Your task to perform on an android device: toggle notification dots Image 0: 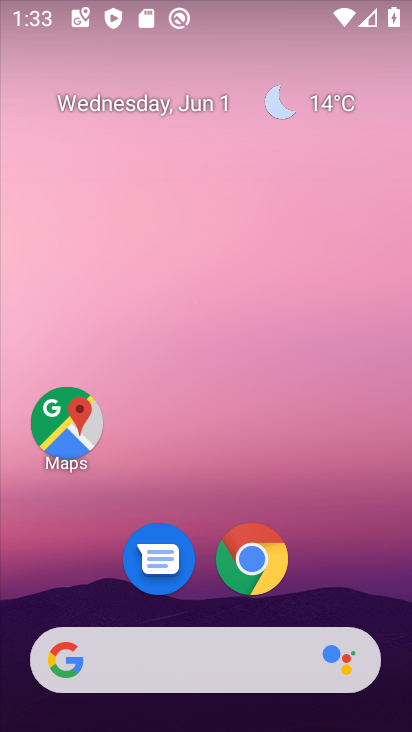
Step 0: drag from (396, 695) to (369, 147)
Your task to perform on an android device: toggle notification dots Image 1: 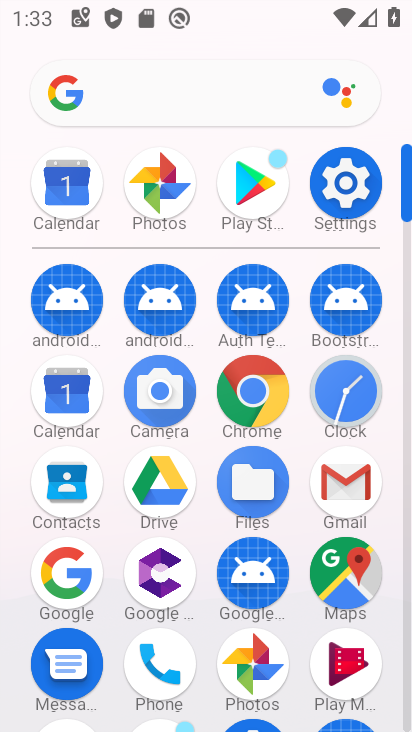
Step 1: click (338, 194)
Your task to perform on an android device: toggle notification dots Image 2: 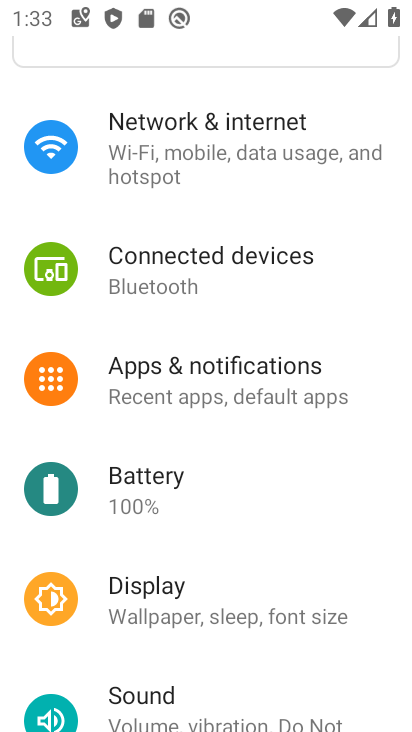
Step 2: click (178, 369)
Your task to perform on an android device: toggle notification dots Image 3: 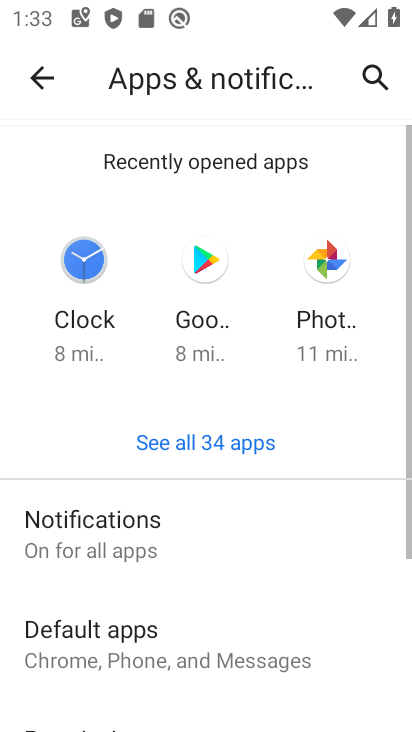
Step 3: click (122, 538)
Your task to perform on an android device: toggle notification dots Image 4: 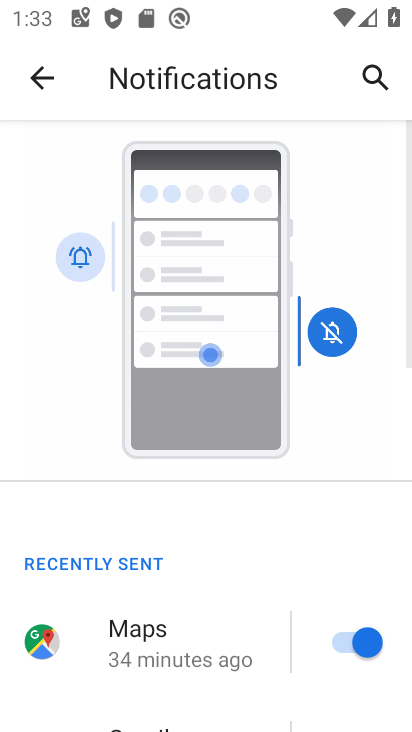
Step 4: drag from (272, 706) to (255, 166)
Your task to perform on an android device: toggle notification dots Image 5: 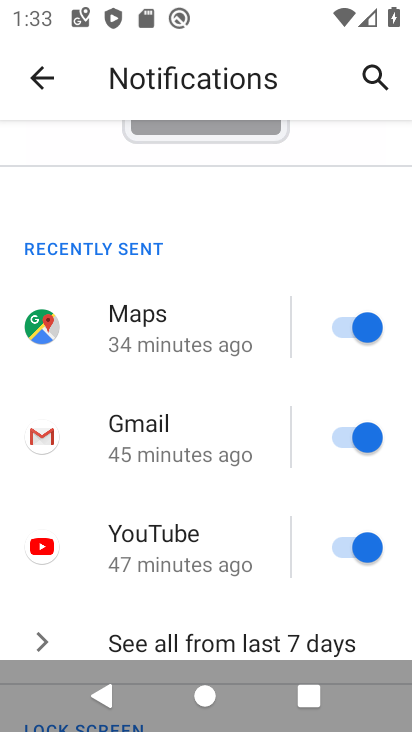
Step 5: drag from (266, 620) to (255, 218)
Your task to perform on an android device: toggle notification dots Image 6: 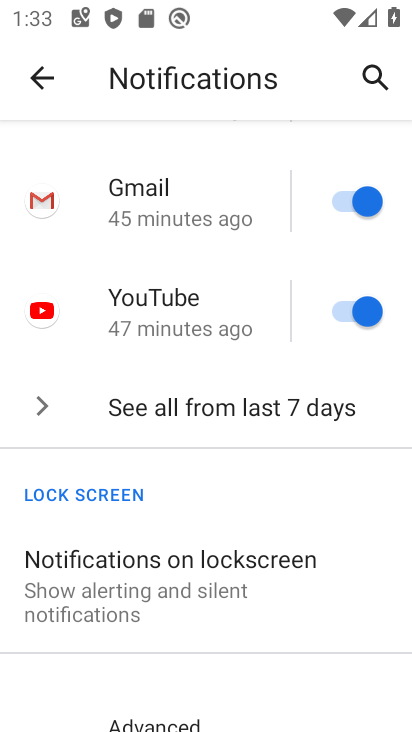
Step 6: drag from (204, 671) to (159, 304)
Your task to perform on an android device: toggle notification dots Image 7: 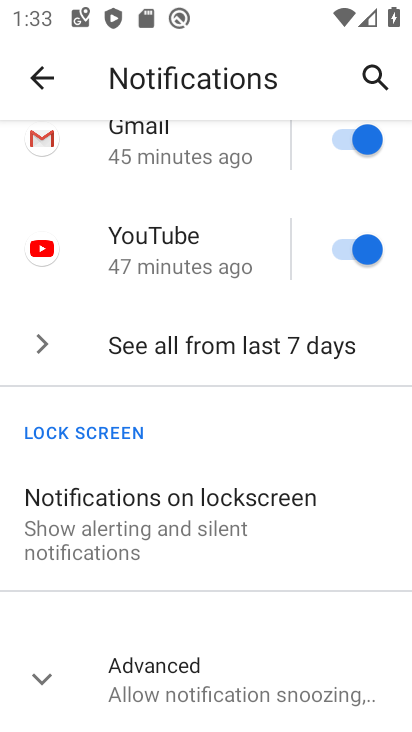
Step 7: click (42, 675)
Your task to perform on an android device: toggle notification dots Image 8: 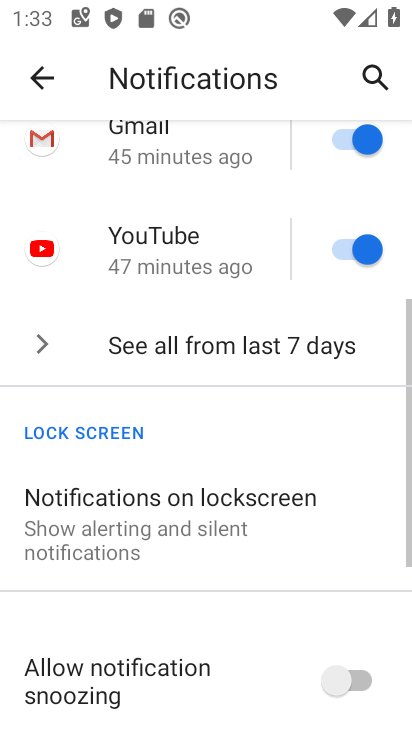
Step 8: drag from (266, 675) to (231, 245)
Your task to perform on an android device: toggle notification dots Image 9: 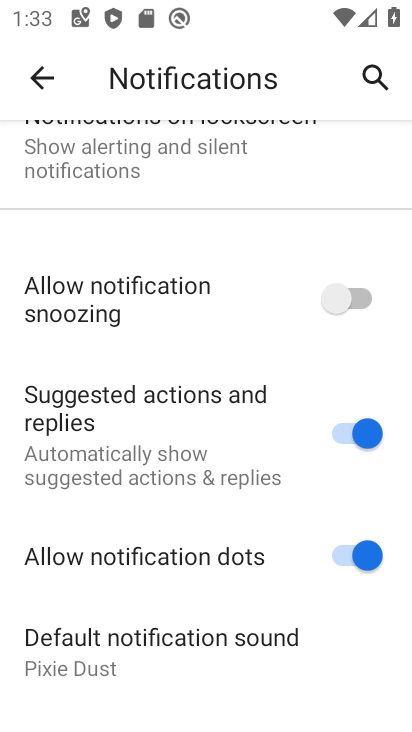
Step 9: click (345, 562)
Your task to perform on an android device: toggle notification dots Image 10: 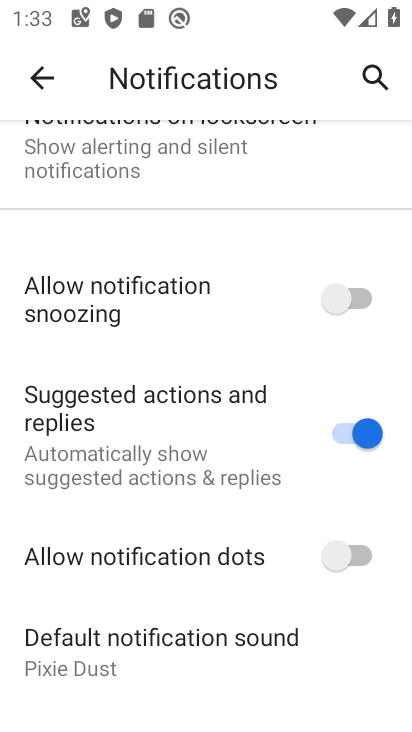
Step 10: task complete